Your task to perform on an android device: When is my next meeting? Image 0: 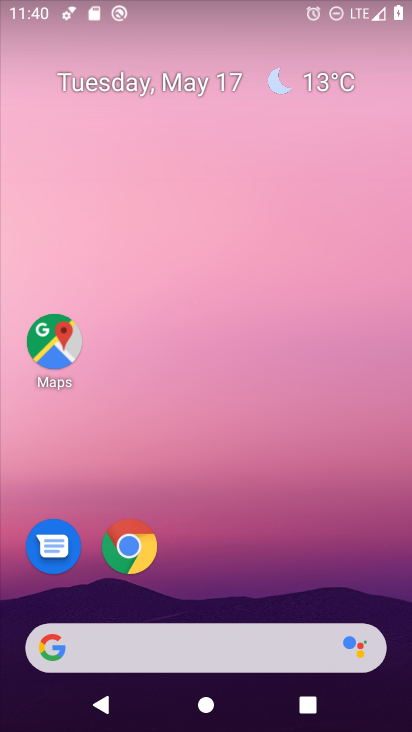
Step 0: drag from (321, 583) to (329, 52)
Your task to perform on an android device: When is my next meeting? Image 1: 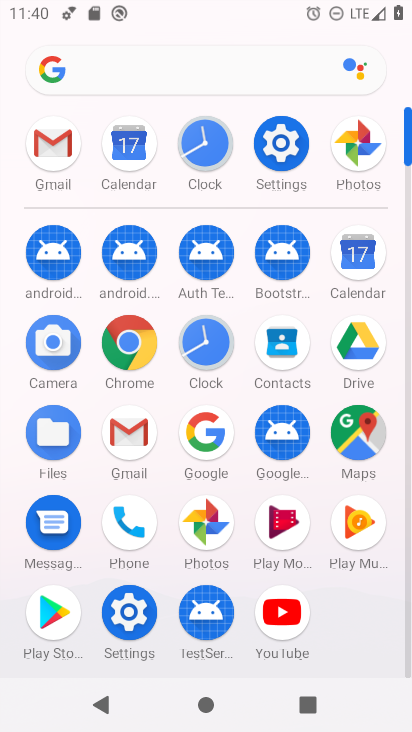
Step 1: click (133, 139)
Your task to perform on an android device: When is my next meeting? Image 2: 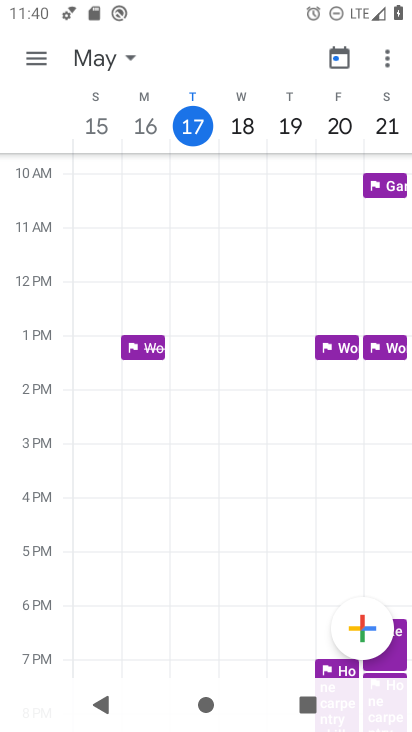
Step 2: click (33, 60)
Your task to perform on an android device: When is my next meeting? Image 3: 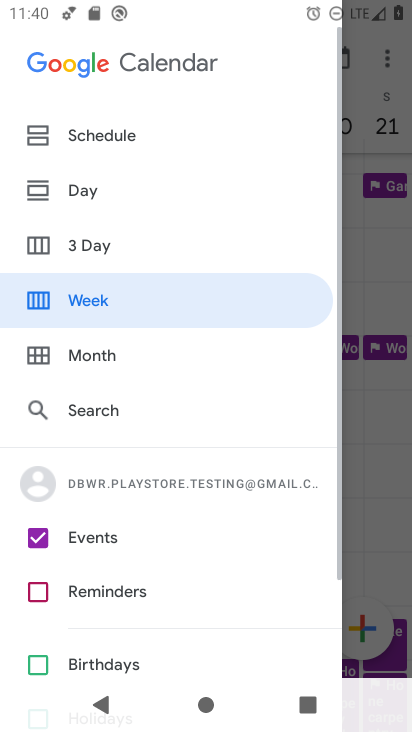
Step 3: click (71, 125)
Your task to perform on an android device: When is my next meeting? Image 4: 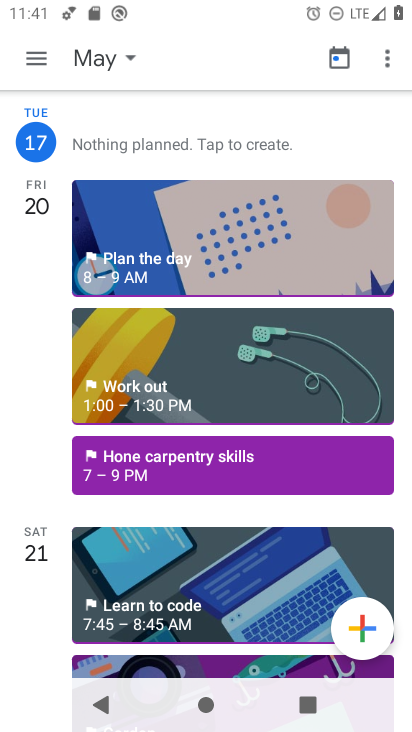
Step 4: click (171, 465)
Your task to perform on an android device: When is my next meeting? Image 5: 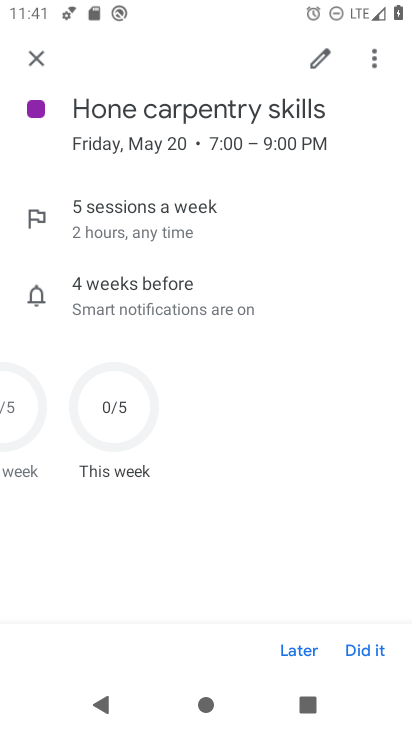
Step 5: task complete